Your task to perform on an android device: open device folders in google photos Image 0: 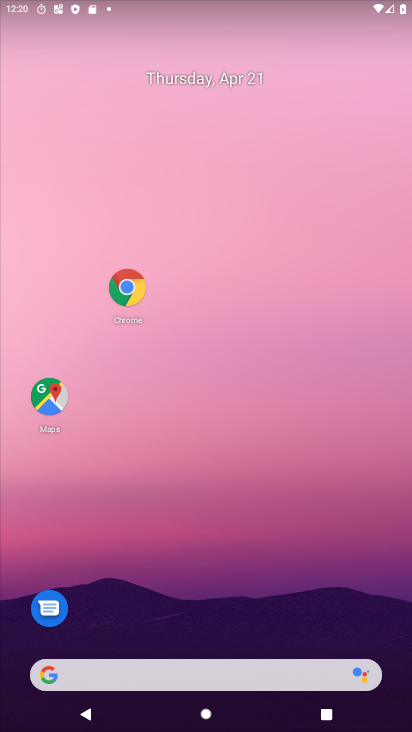
Step 0: drag from (163, 394) to (117, 107)
Your task to perform on an android device: open device folders in google photos Image 1: 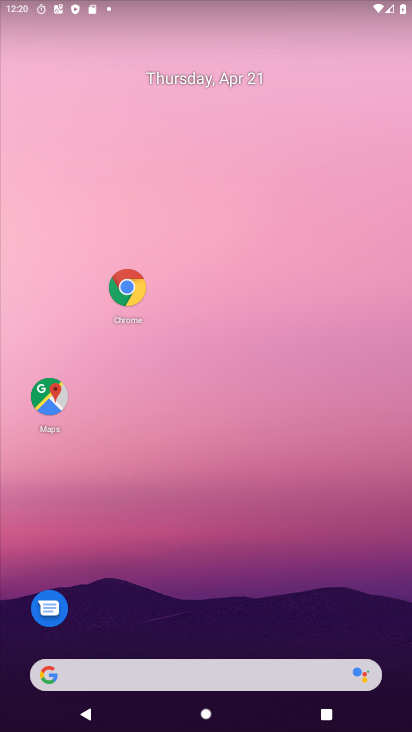
Step 1: drag from (242, 552) to (180, 48)
Your task to perform on an android device: open device folders in google photos Image 2: 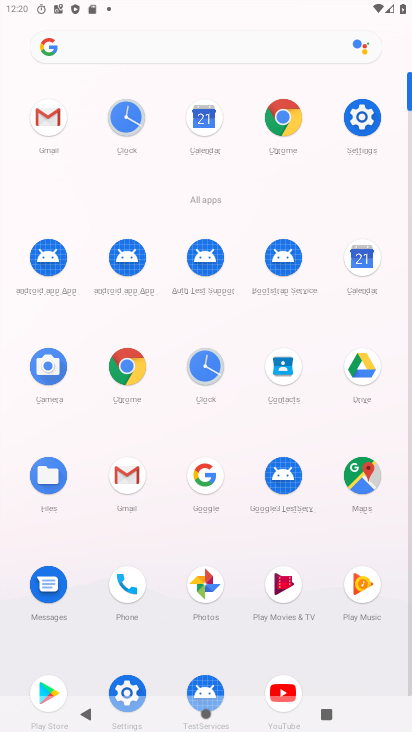
Step 2: click (200, 583)
Your task to perform on an android device: open device folders in google photos Image 3: 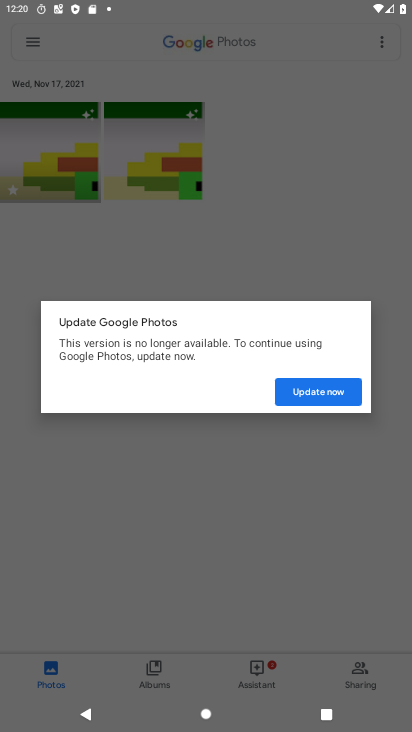
Step 3: click (42, 72)
Your task to perform on an android device: open device folders in google photos Image 4: 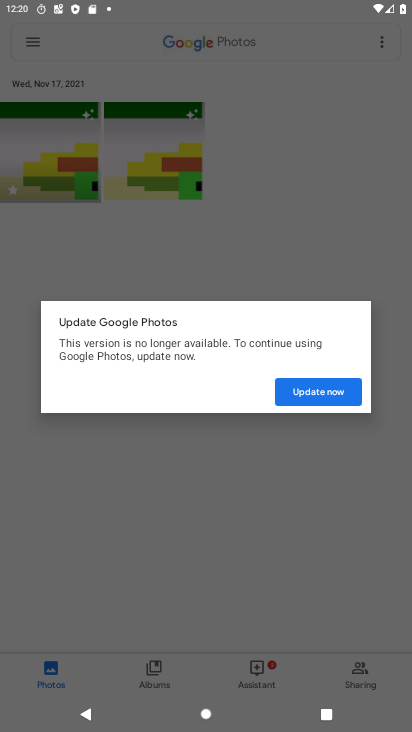
Step 4: click (317, 386)
Your task to perform on an android device: open device folders in google photos Image 5: 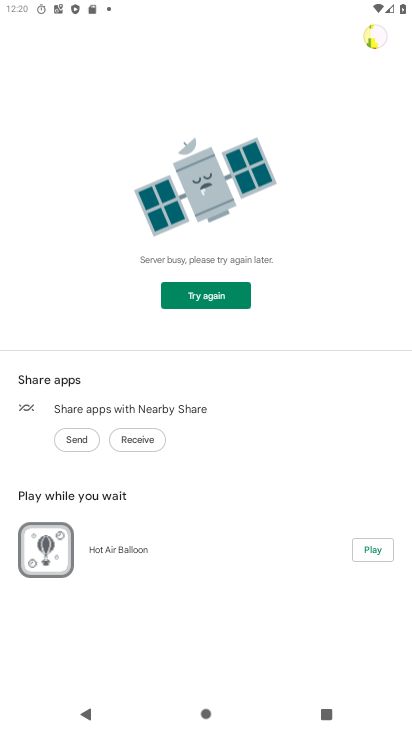
Step 5: press back button
Your task to perform on an android device: open device folders in google photos Image 6: 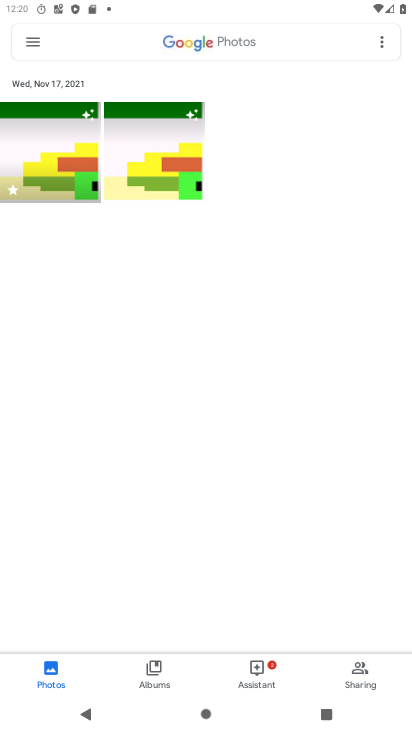
Step 6: click (32, 41)
Your task to perform on an android device: open device folders in google photos Image 7: 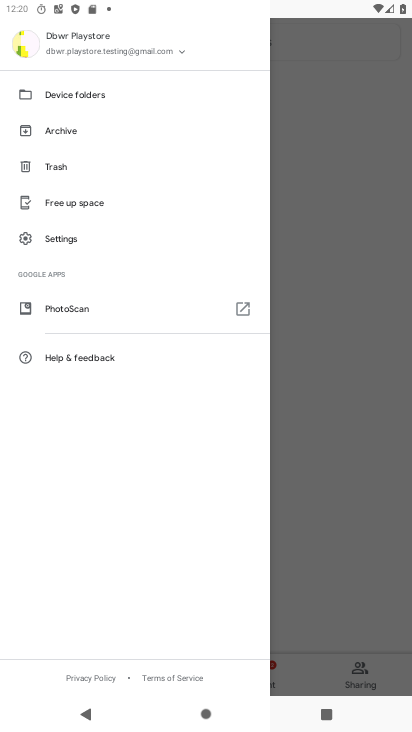
Step 7: click (61, 98)
Your task to perform on an android device: open device folders in google photos Image 8: 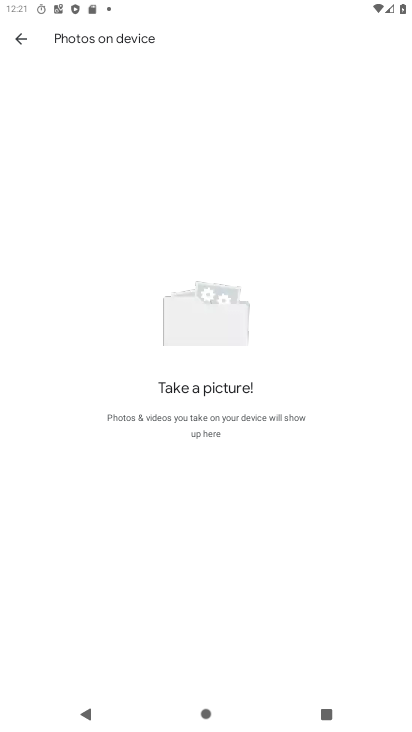
Step 8: task complete